Your task to perform on an android device: Open Google Maps and go to "Timeline" Image 0: 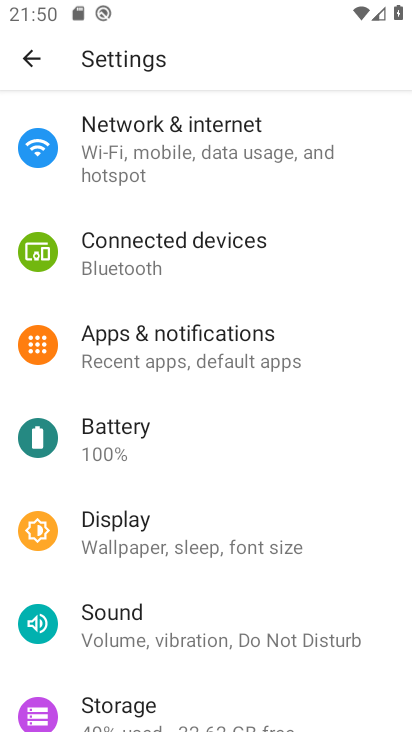
Step 0: press home button
Your task to perform on an android device: Open Google Maps and go to "Timeline" Image 1: 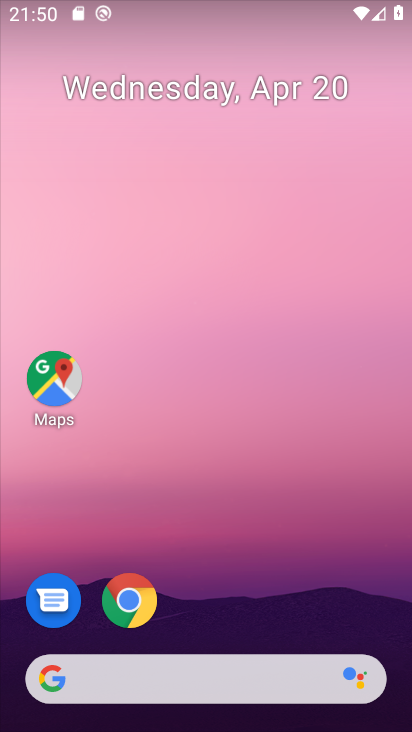
Step 1: click (205, 617)
Your task to perform on an android device: Open Google Maps and go to "Timeline" Image 2: 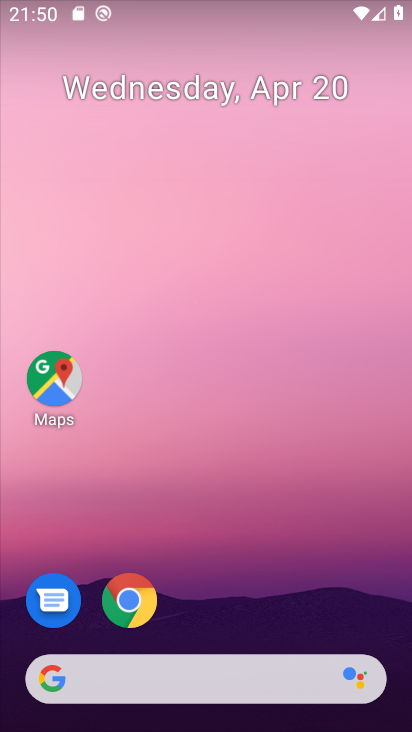
Step 2: click (53, 391)
Your task to perform on an android device: Open Google Maps and go to "Timeline" Image 3: 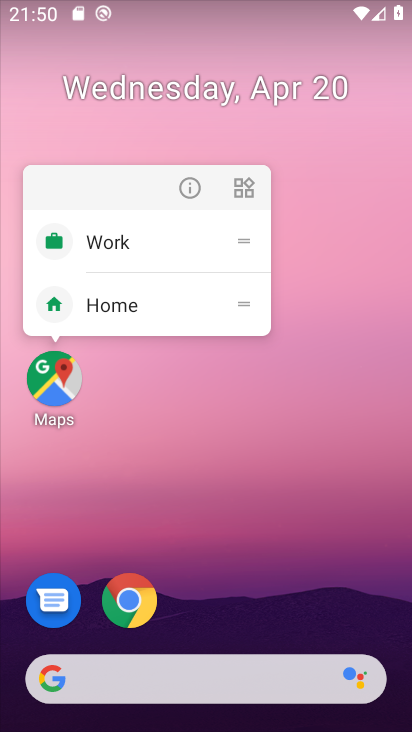
Step 3: click (60, 380)
Your task to perform on an android device: Open Google Maps and go to "Timeline" Image 4: 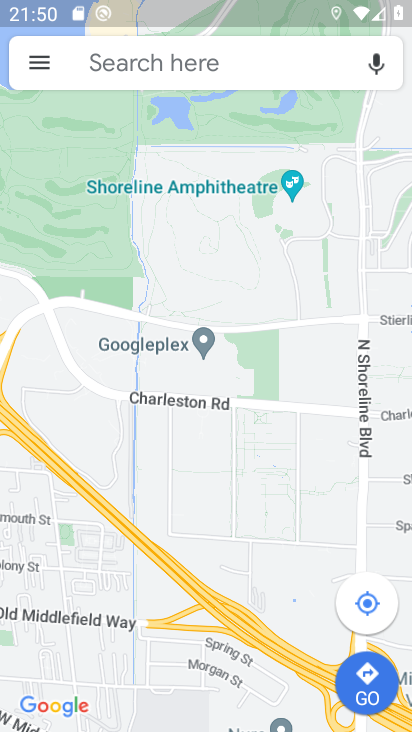
Step 4: click (40, 59)
Your task to perform on an android device: Open Google Maps and go to "Timeline" Image 5: 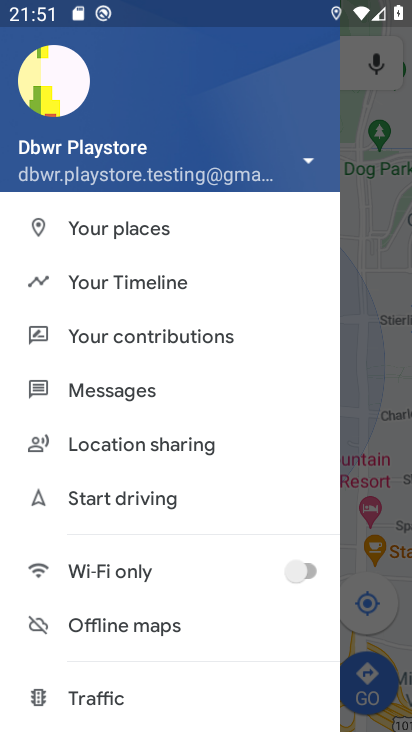
Step 5: click (95, 286)
Your task to perform on an android device: Open Google Maps and go to "Timeline" Image 6: 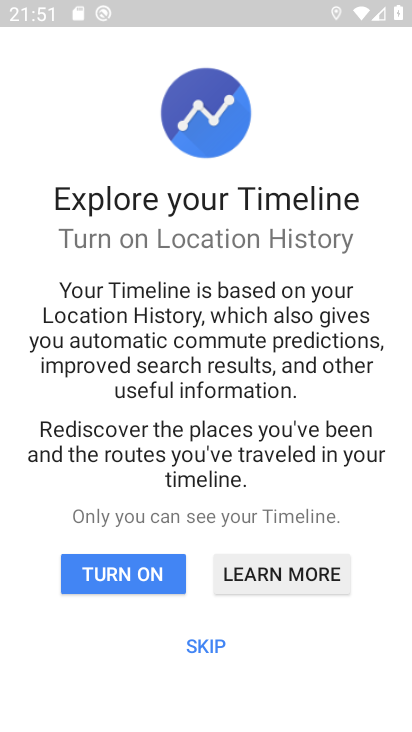
Step 6: click (206, 643)
Your task to perform on an android device: Open Google Maps and go to "Timeline" Image 7: 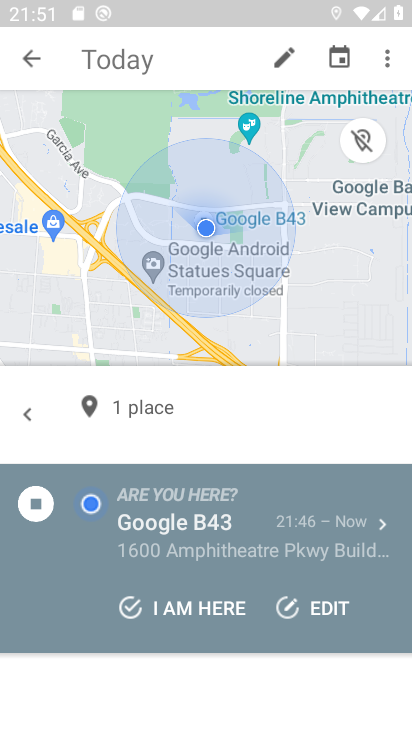
Step 7: task complete